Your task to perform on an android device: Go to Android settings Image 0: 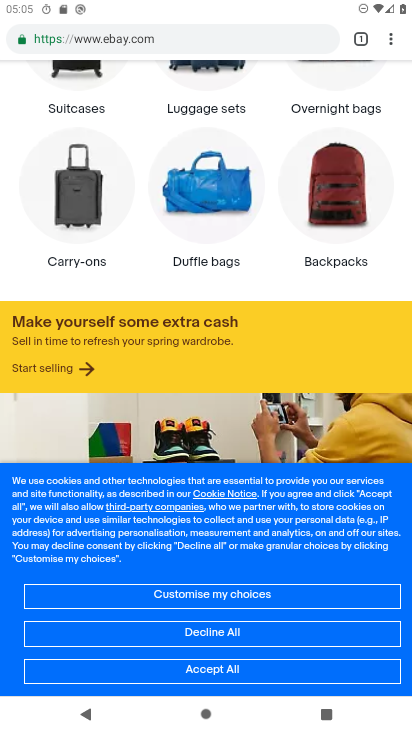
Step 0: press home button
Your task to perform on an android device: Go to Android settings Image 1: 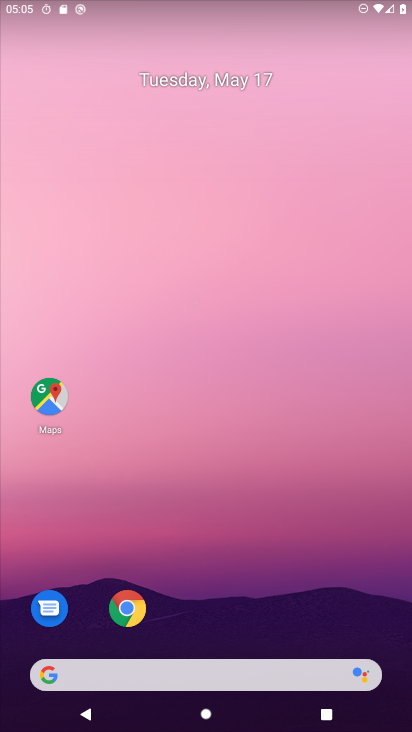
Step 1: drag from (223, 651) to (223, 251)
Your task to perform on an android device: Go to Android settings Image 2: 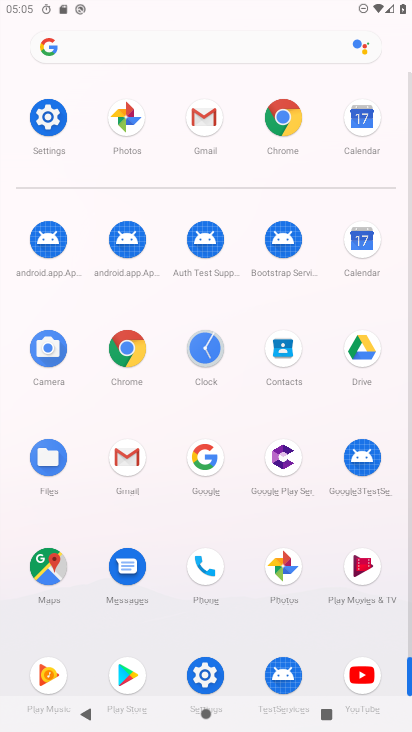
Step 2: click (42, 118)
Your task to perform on an android device: Go to Android settings Image 3: 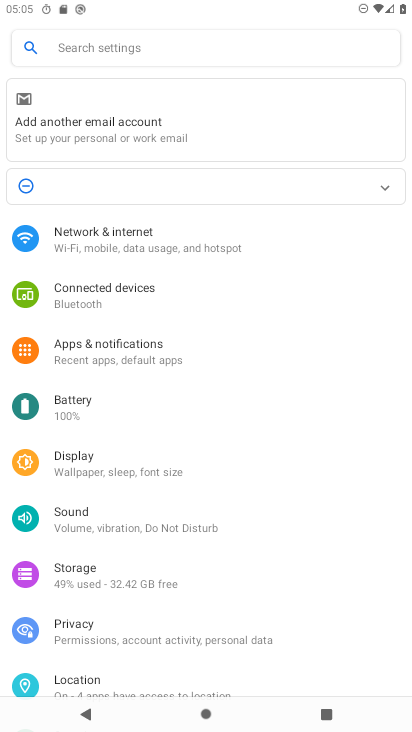
Step 3: task complete